Your task to perform on an android device: Clear the shopping cart on costco.com. Add razer naga to the cart on costco.com Image 0: 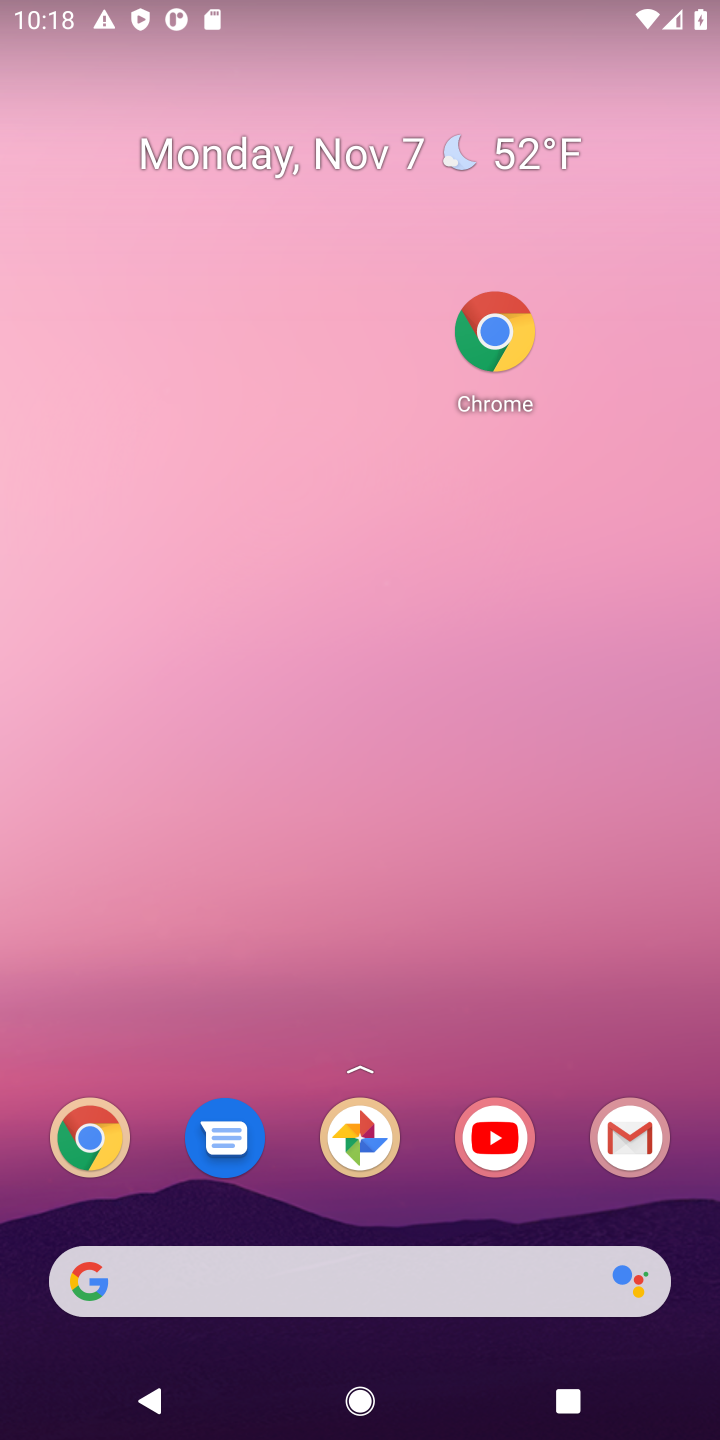
Step 0: drag from (431, 1128) to (370, 295)
Your task to perform on an android device: Clear the shopping cart on costco.com. Add razer naga to the cart on costco.com Image 1: 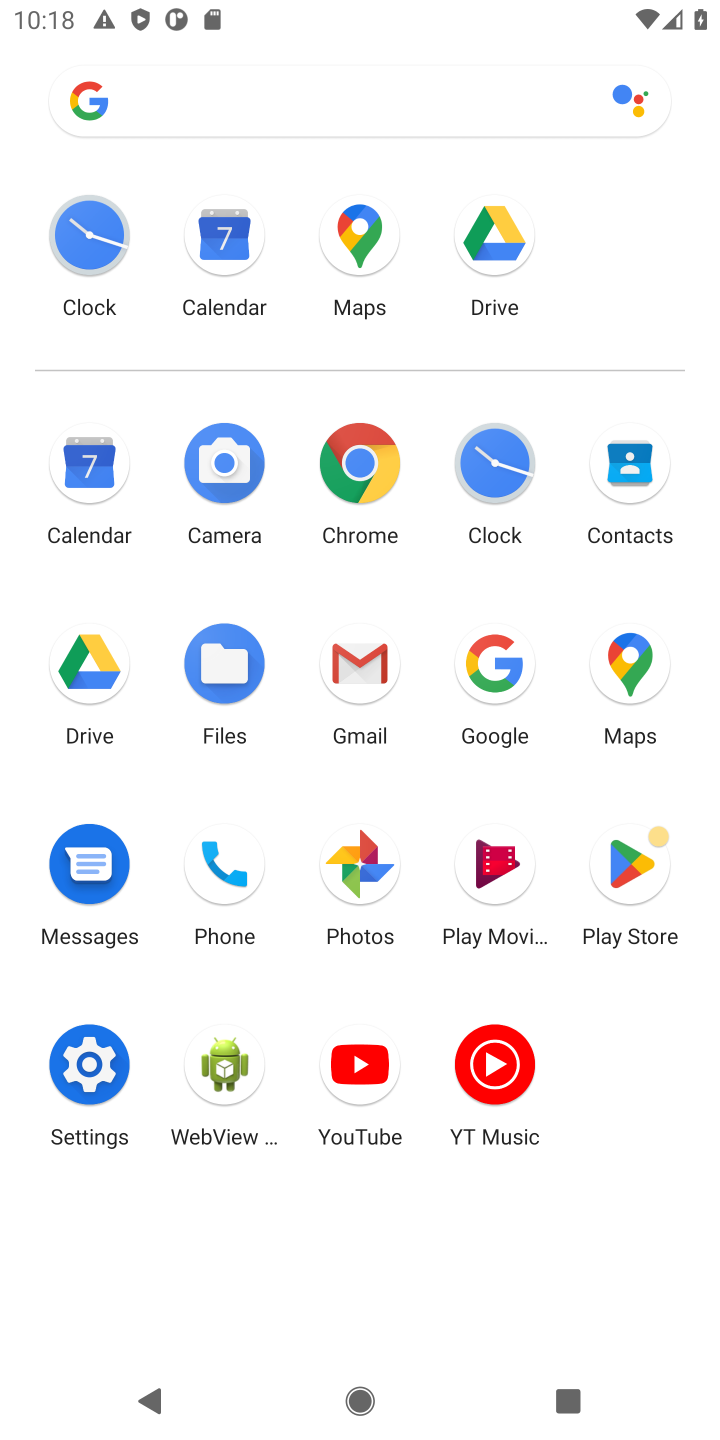
Step 1: click (366, 465)
Your task to perform on an android device: Clear the shopping cart on costco.com. Add razer naga to the cart on costco.com Image 2: 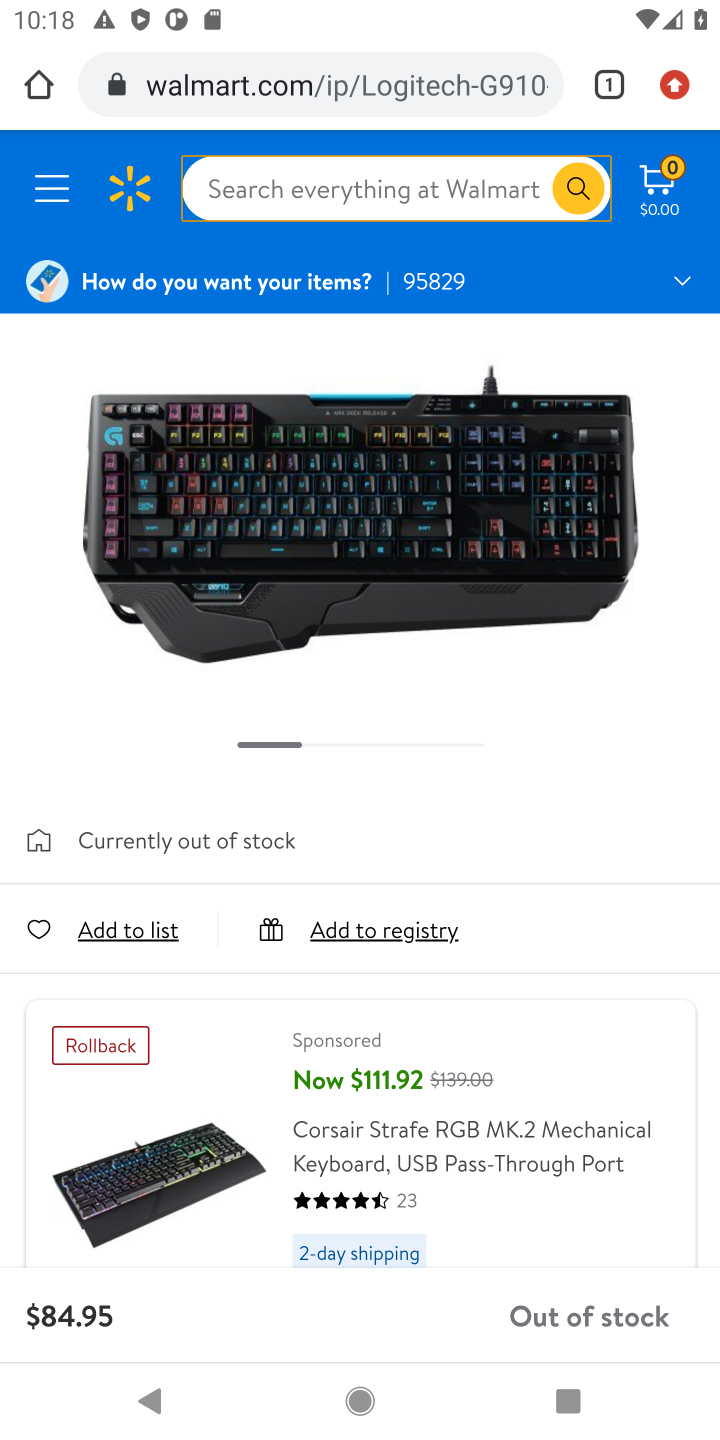
Step 2: click (442, 88)
Your task to perform on an android device: Clear the shopping cart on costco.com. Add razer naga to the cart on costco.com Image 3: 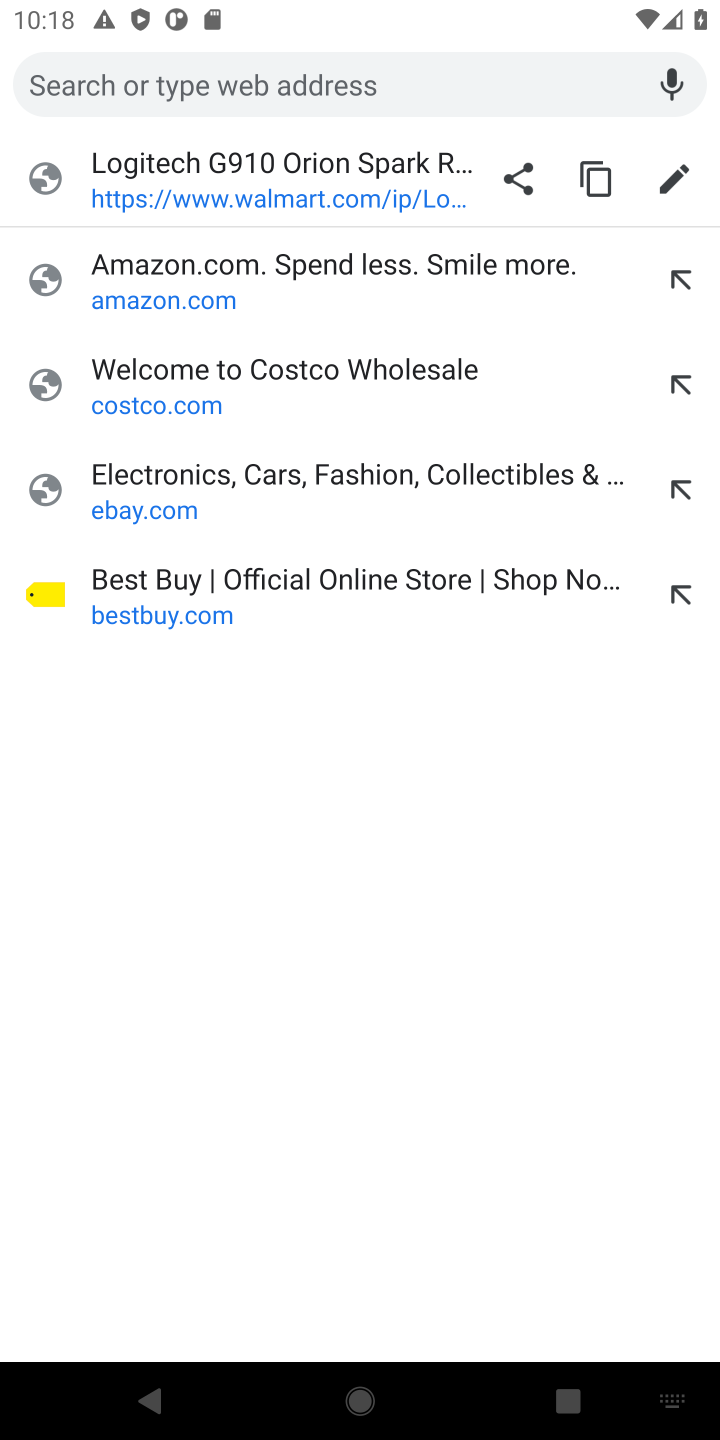
Step 3: type "costco.com"
Your task to perform on an android device: Clear the shopping cart on costco.com. Add razer naga to the cart on costco.com Image 4: 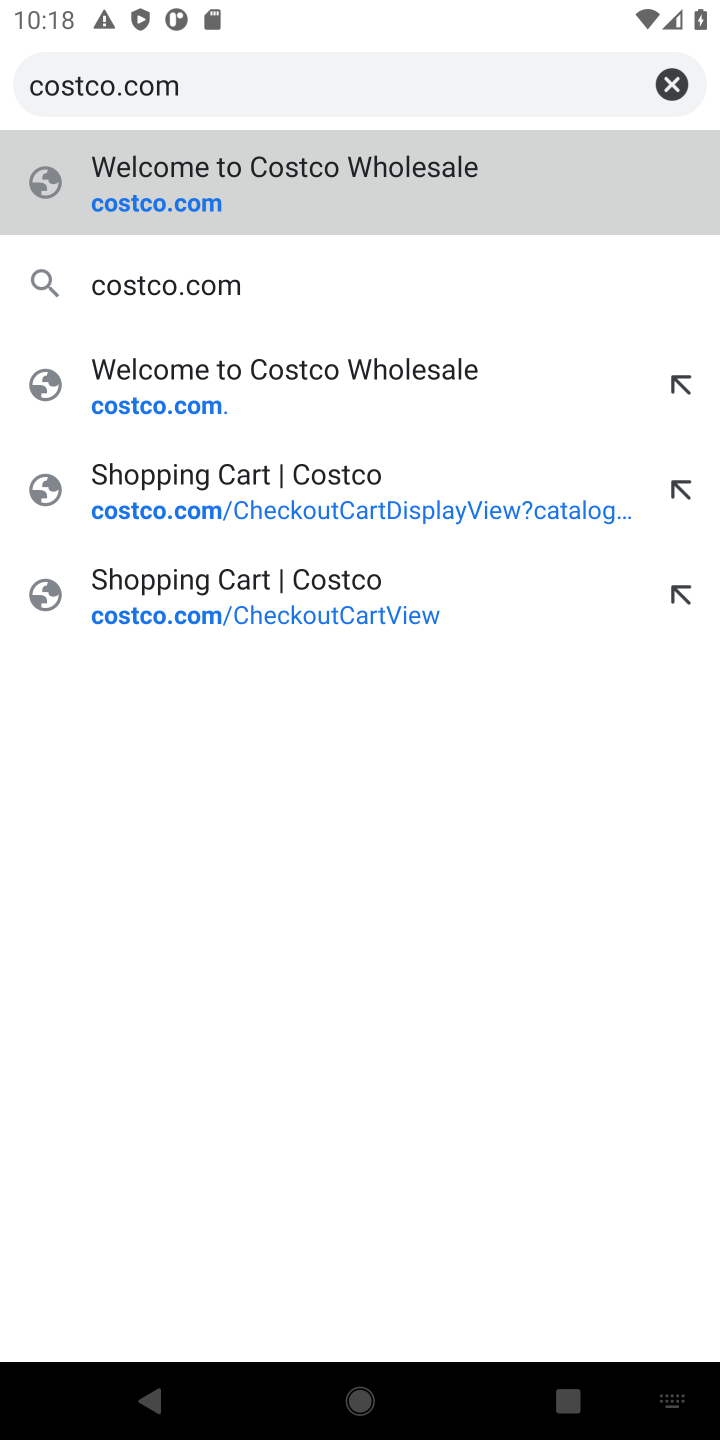
Step 4: press enter
Your task to perform on an android device: Clear the shopping cart on costco.com. Add razer naga to the cart on costco.com Image 5: 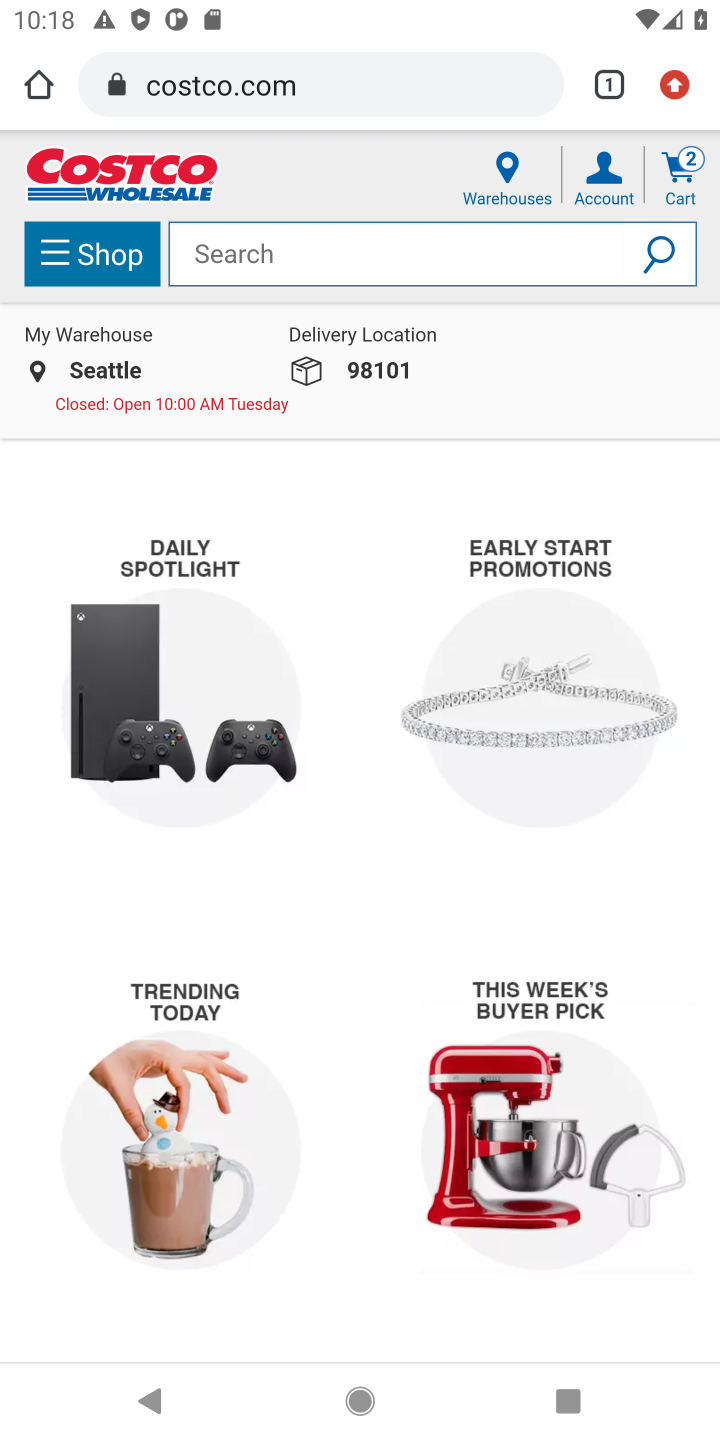
Step 5: click (680, 181)
Your task to perform on an android device: Clear the shopping cart on costco.com. Add razer naga to the cart on costco.com Image 6: 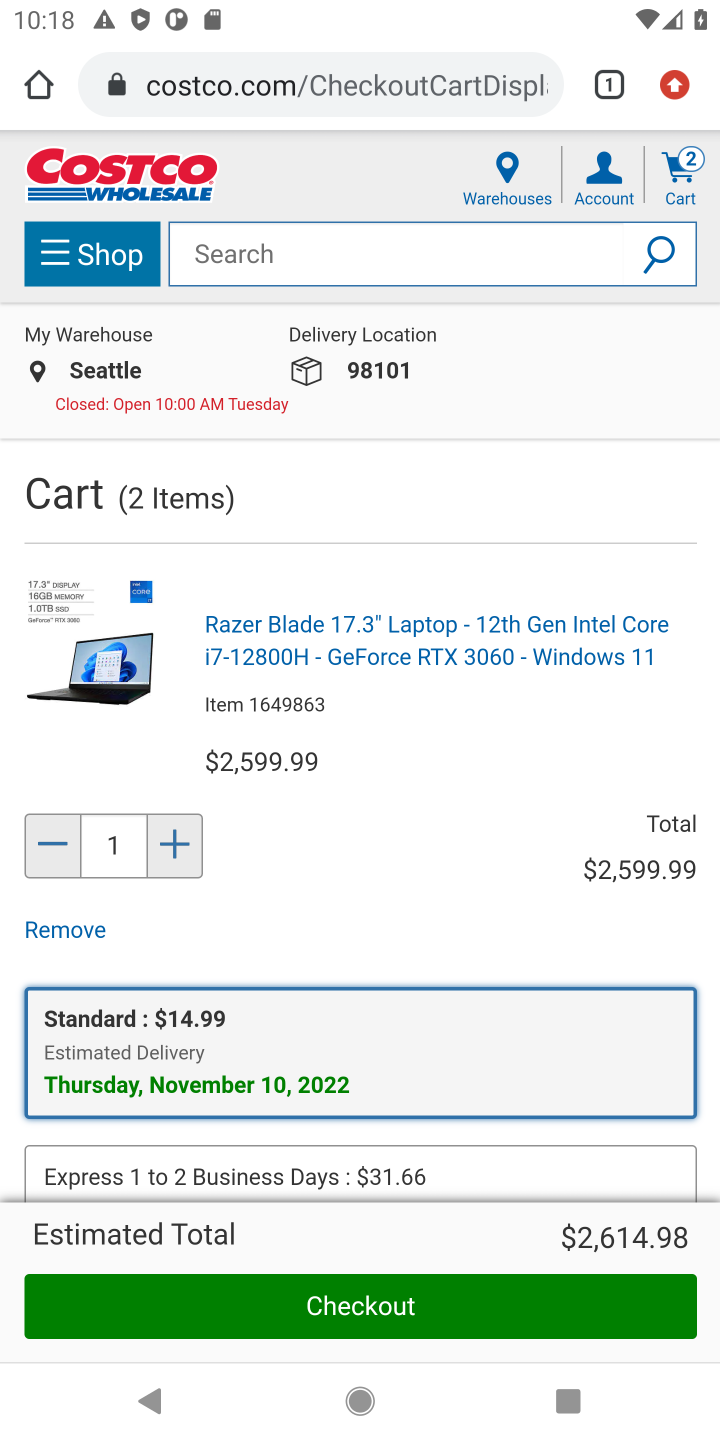
Step 6: click (88, 932)
Your task to perform on an android device: Clear the shopping cart on costco.com. Add razer naga to the cart on costco.com Image 7: 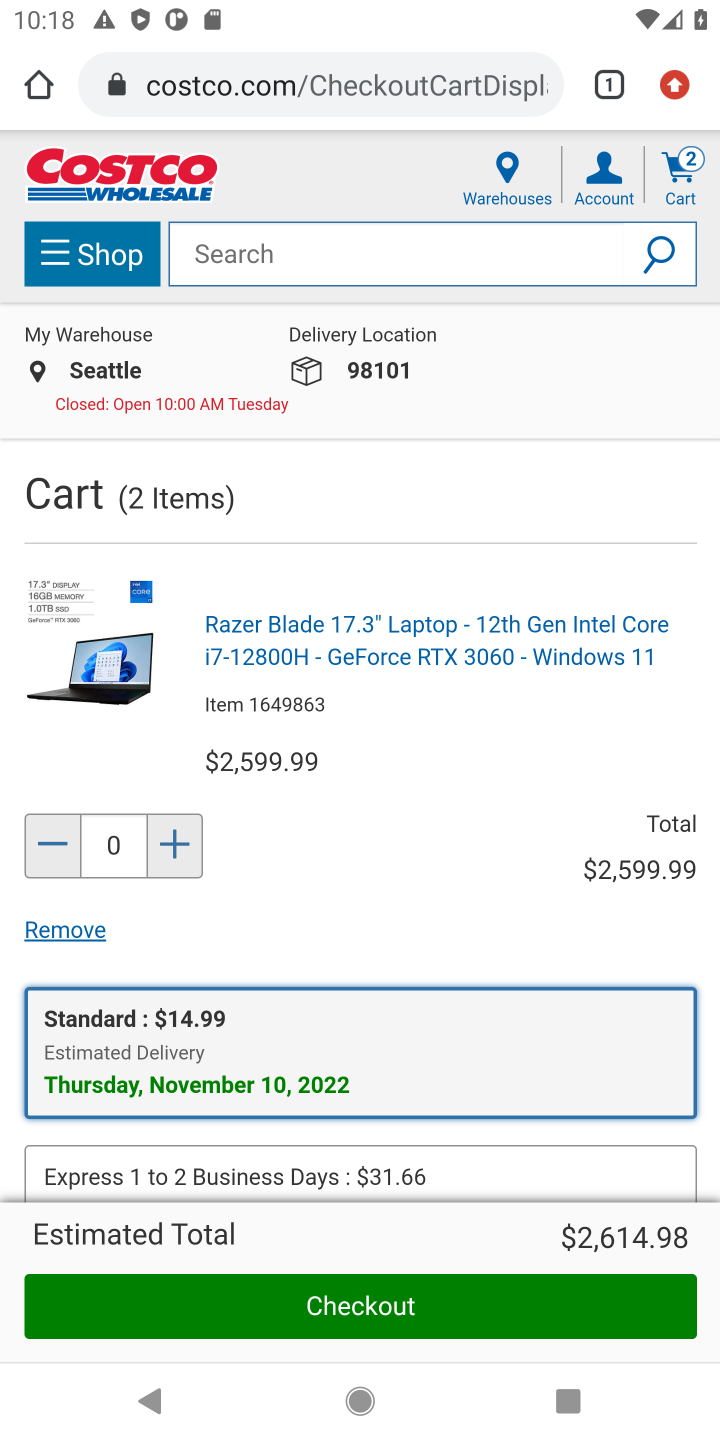
Step 7: click (76, 916)
Your task to perform on an android device: Clear the shopping cart on costco.com. Add razer naga to the cart on costco.com Image 8: 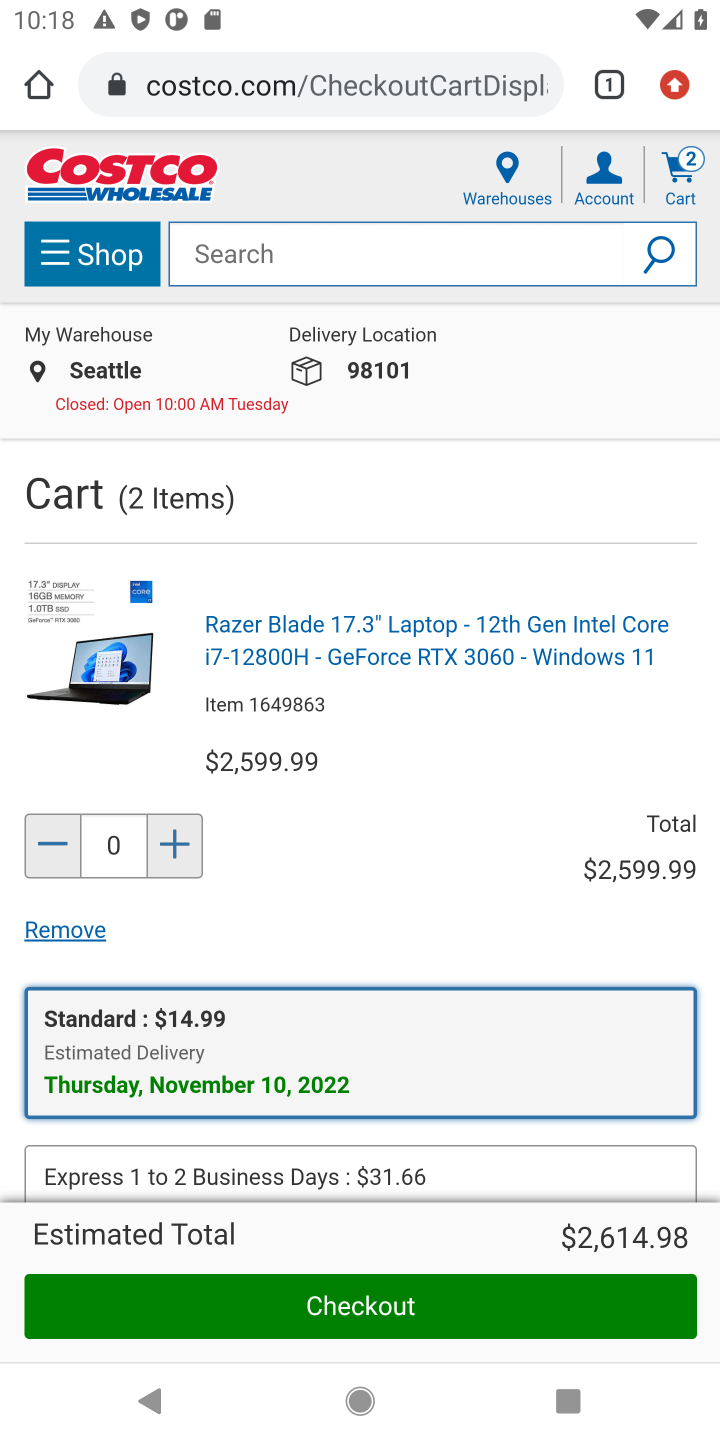
Step 8: click (78, 928)
Your task to perform on an android device: Clear the shopping cart on costco.com. Add razer naga to the cart on costco.com Image 9: 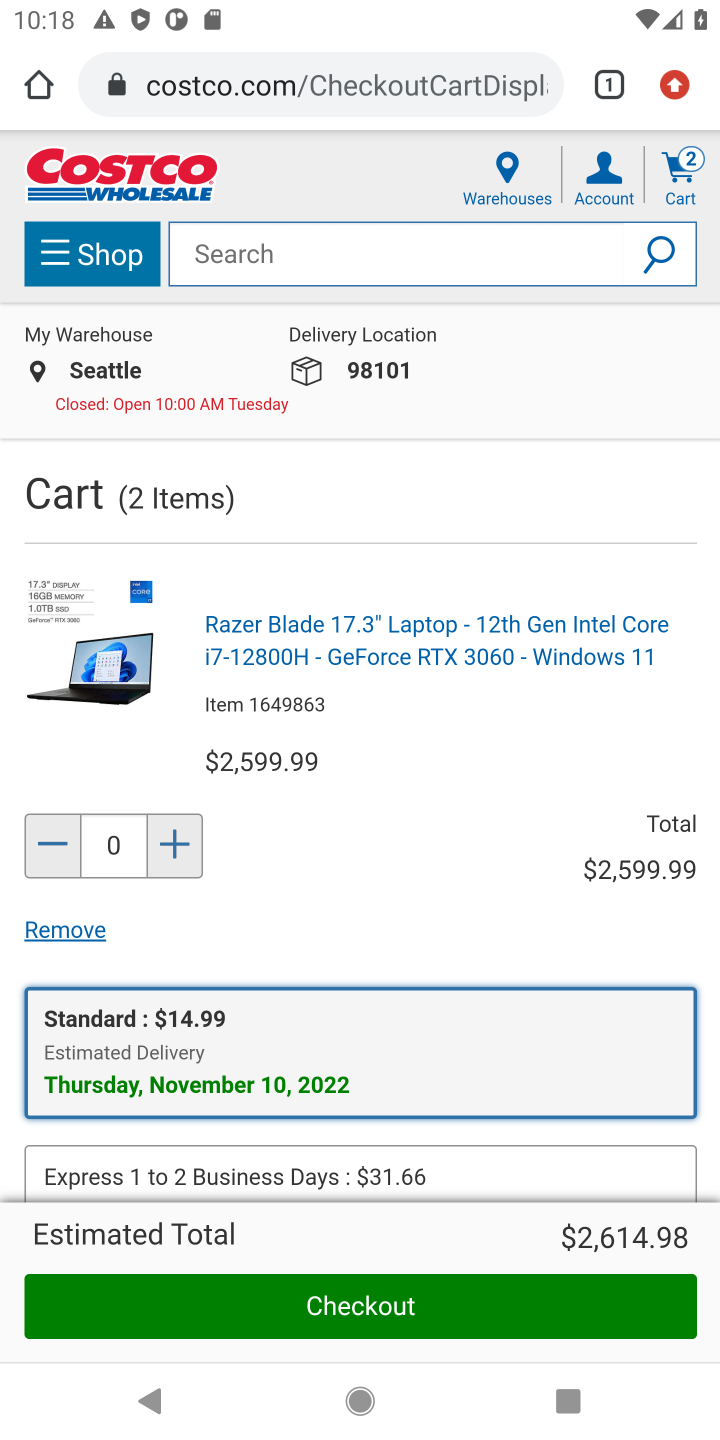
Step 9: click (78, 928)
Your task to perform on an android device: Clear the shopping cart on costco.com. Add razer naga to the cart on costco.com Image 10: 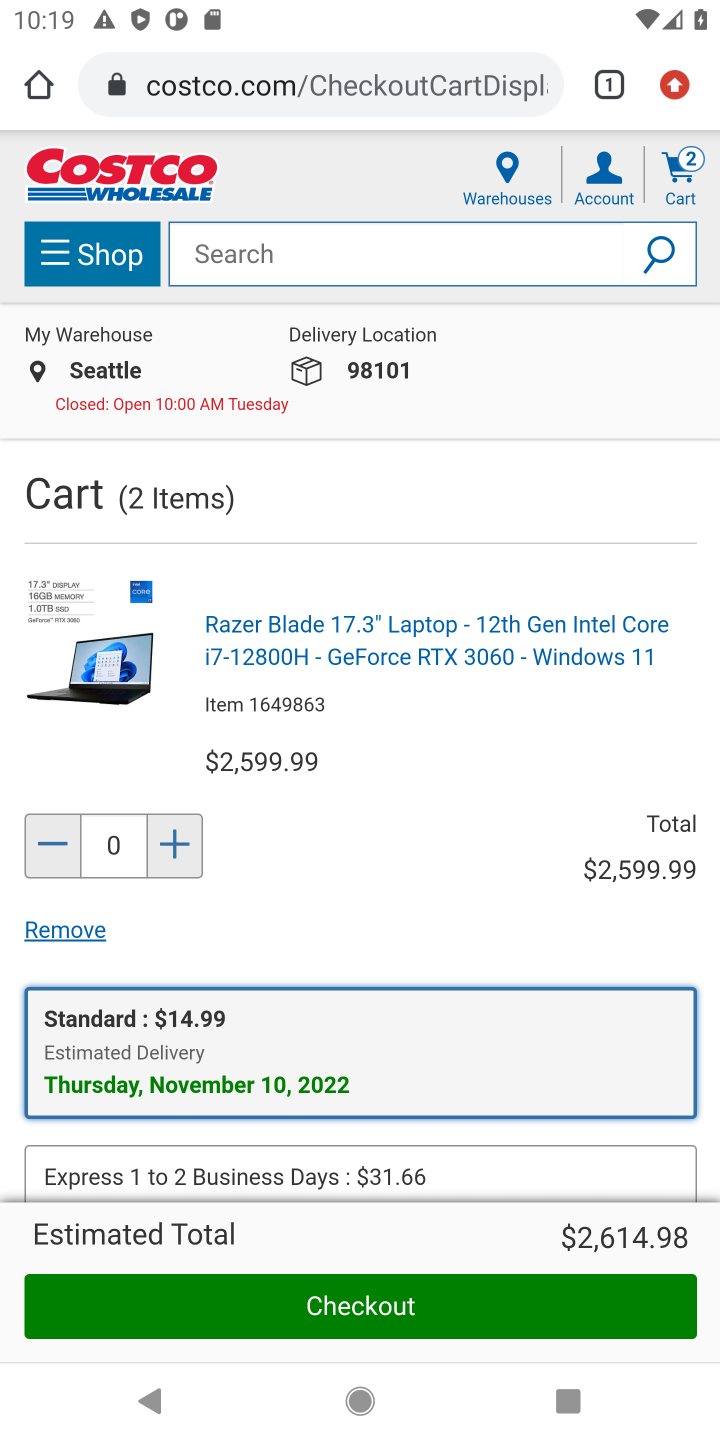
Step 10: click (78, 933)
Your task to perform on an android device: Clear the shopping cart on costco.com. Add razer naga to the cart on costco.com Image 11: 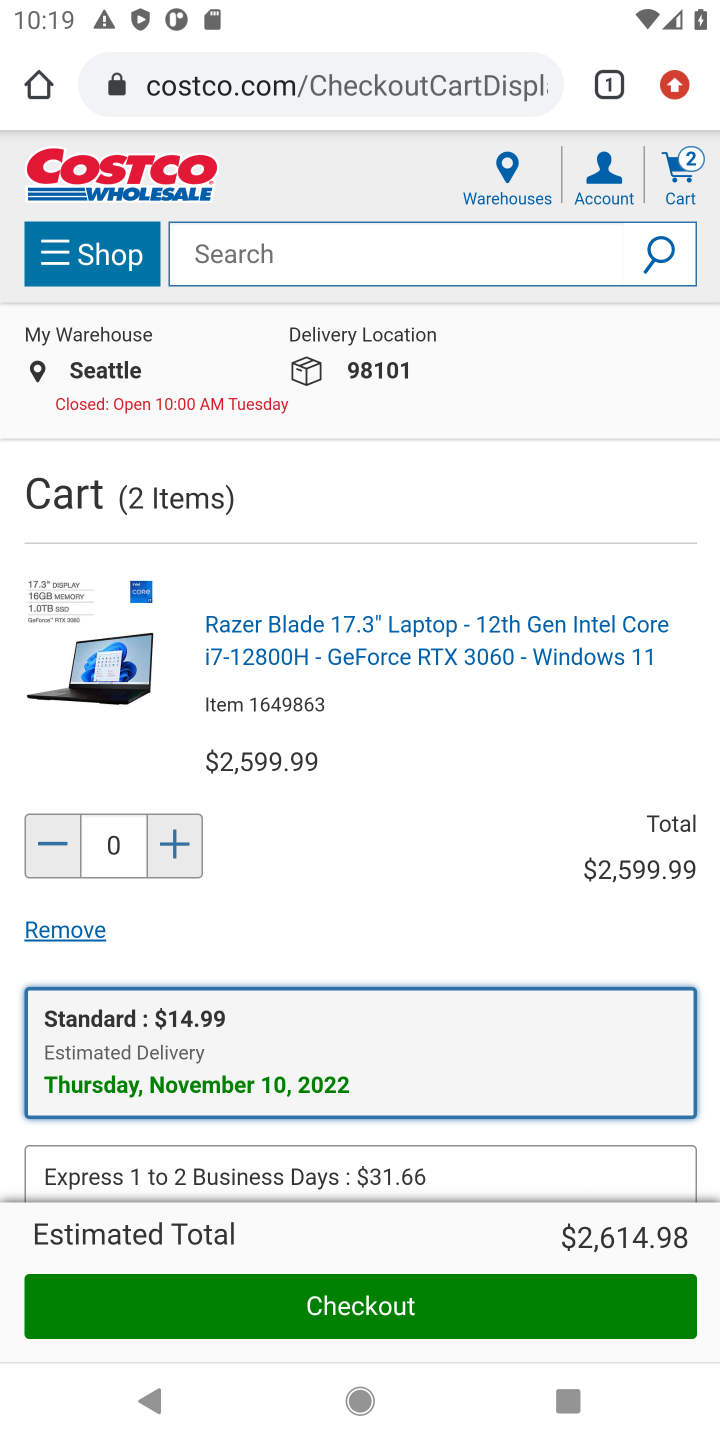
Step 11: click (78, 933)
Your task to perform on an android device: Clear the shopping cart on costco.com. Add razer naga to the cart on costco.com Image 12: 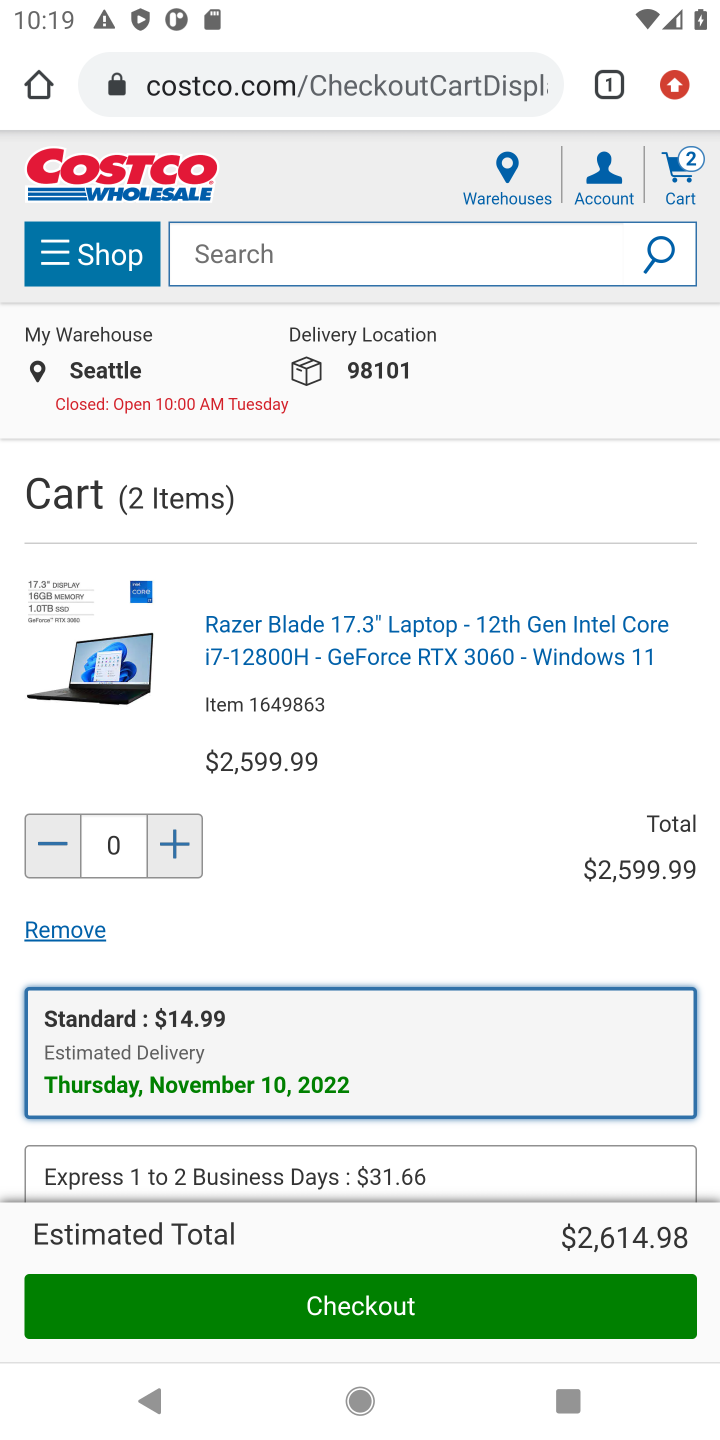
Step 12: click (68, 932)
Your task to perform on an android device: Clear the shopping cart on costco.com. Add razer naga to the cart on costco.com Image 13: 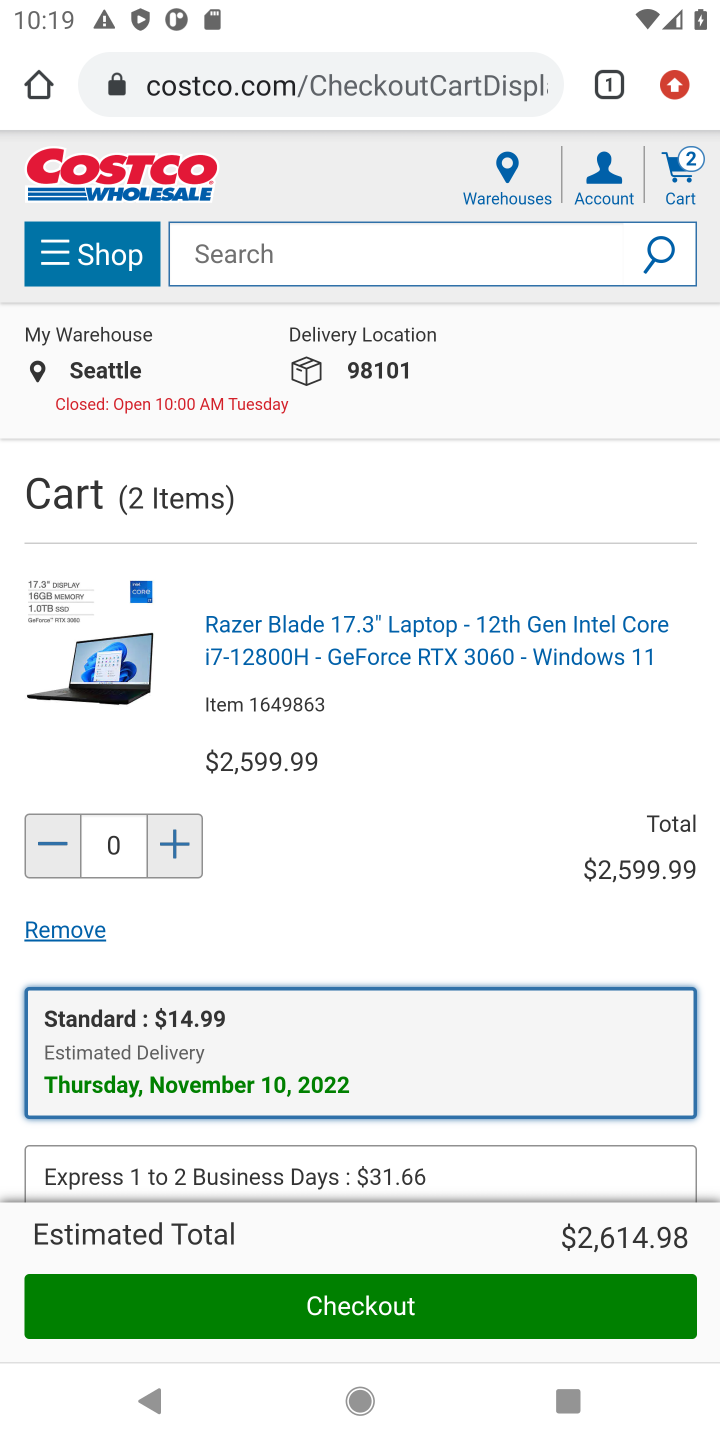
Step 13: drag from (482, 890) to (520, 586)
Your task to perform on an android device: Clear the shopping cart on costco.com. Add razer naga to the cart on costco.com Image 14: 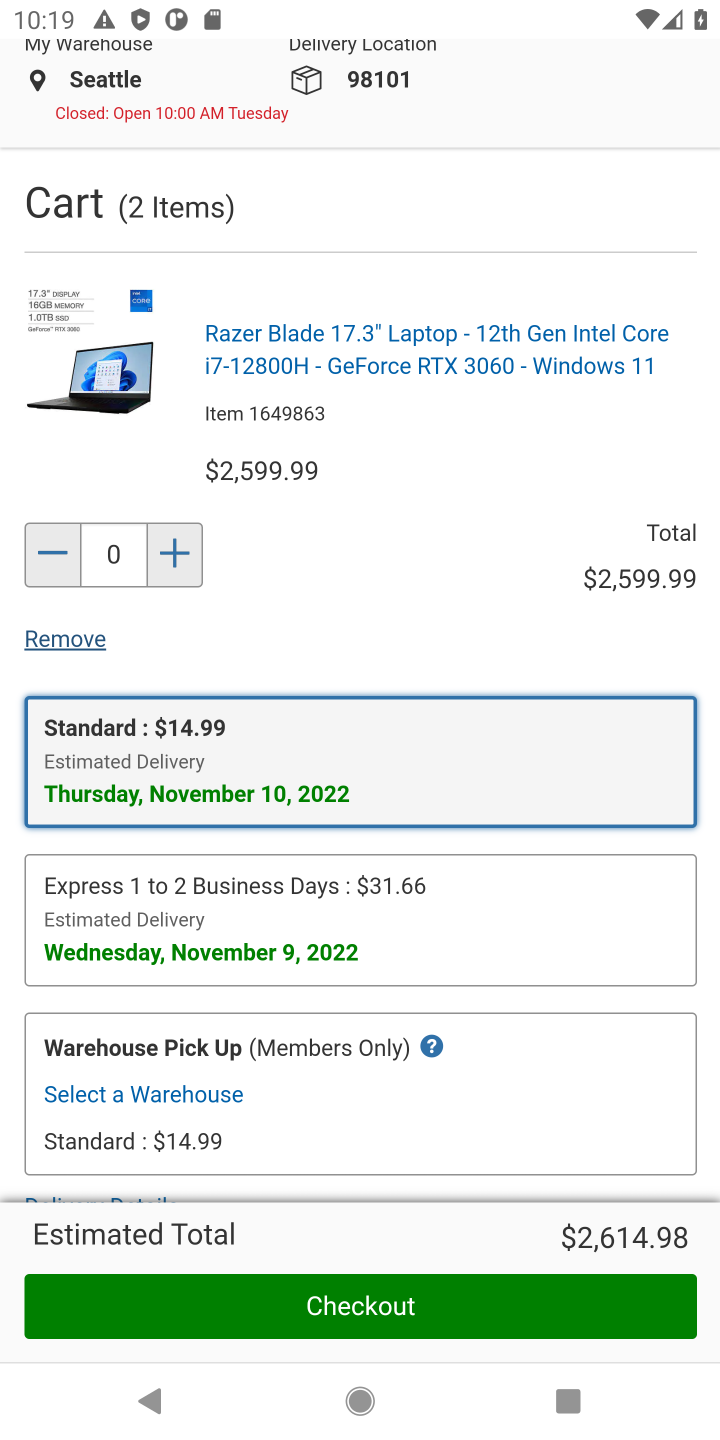
Step 14: click (61, 639)
Your task to perform on an android device: Clear the shopping cart on costco.com. Add razer naga to the cart on costco.com Image 15: 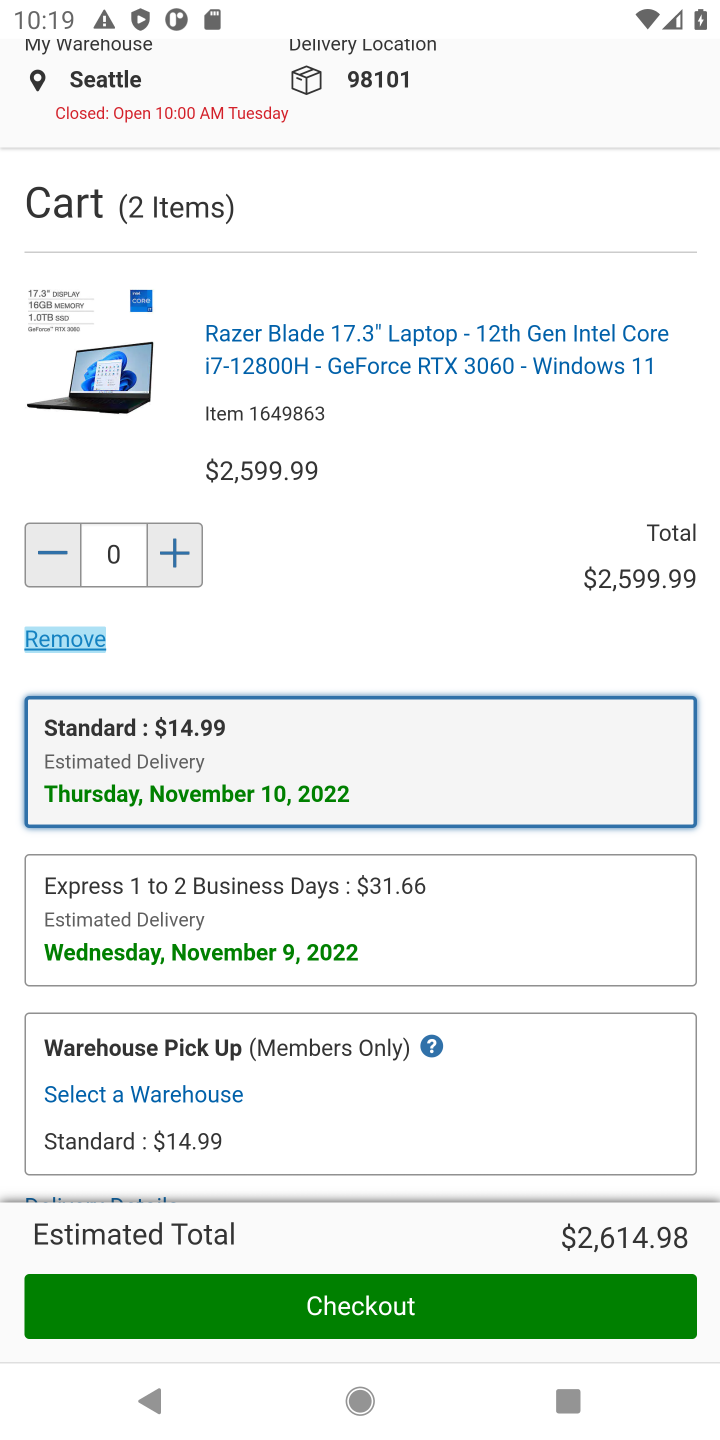
Step 15: click (61, 639)
Your task to perform on an android device: Clear the shopping cart on costco.com. Add razer naga to the cart on costco.com Image 16: 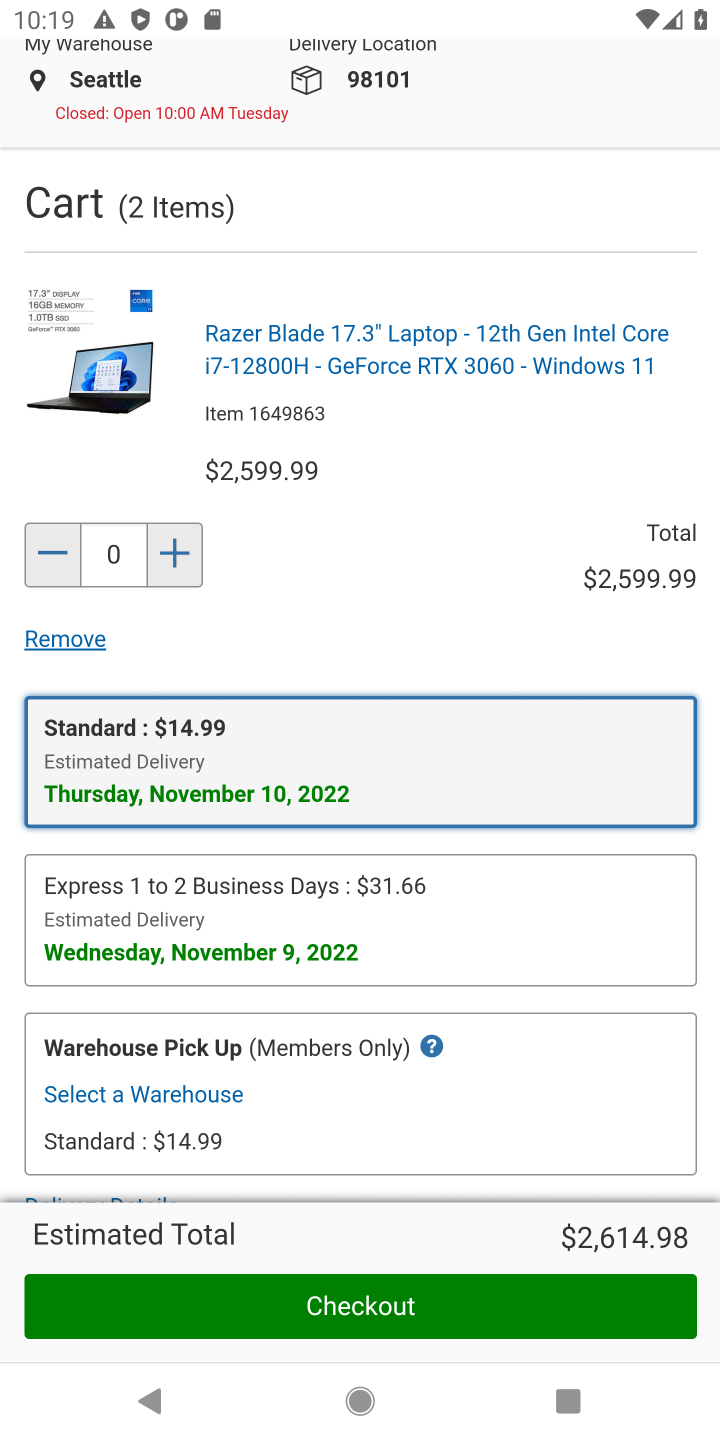
Step 16: click (61, 639)
Your task to perform on an android device: Clear the shopping cart on costco.com. Add razer naga to the cart on costco.com Image 17: 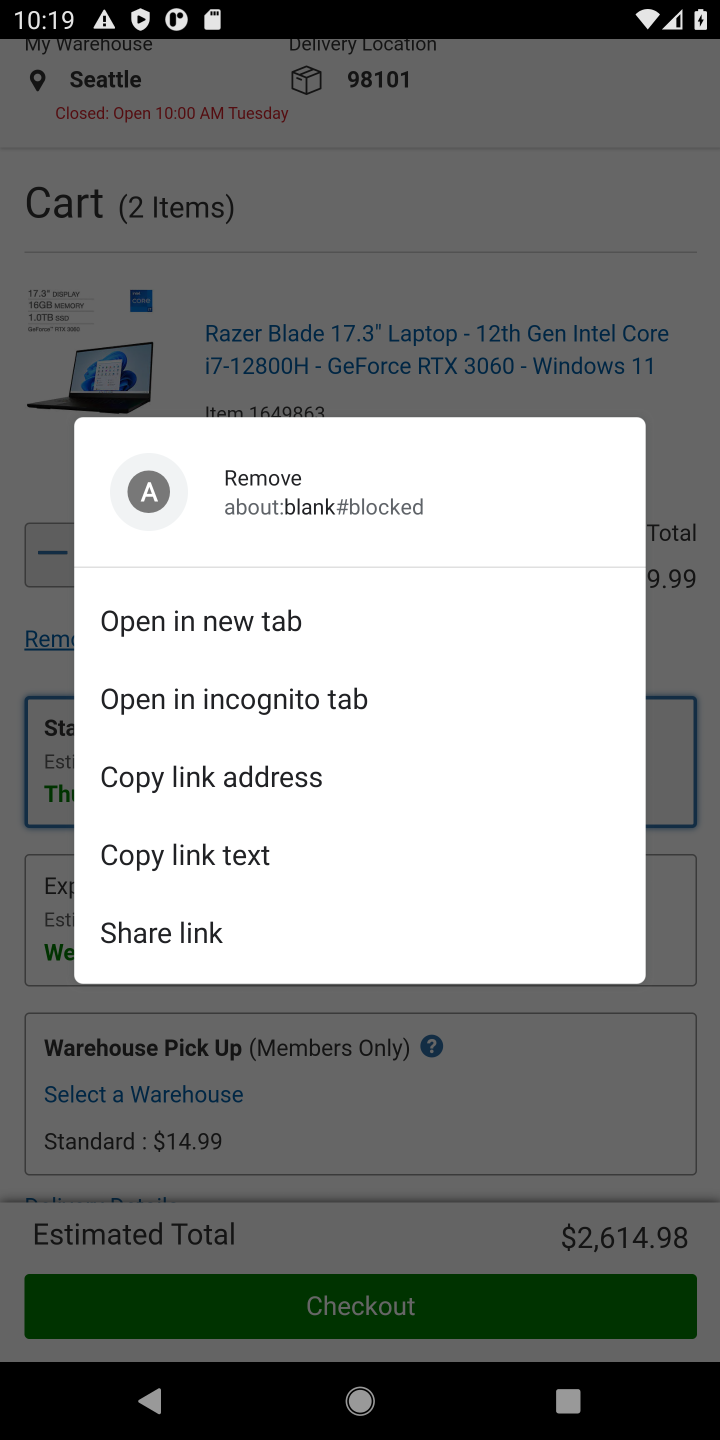
Step 17: click (659, 370)
Your task to perform on an android device: Clear the shopping cart on costco.com. Add razer naga to the cart on costco.com Image 18: 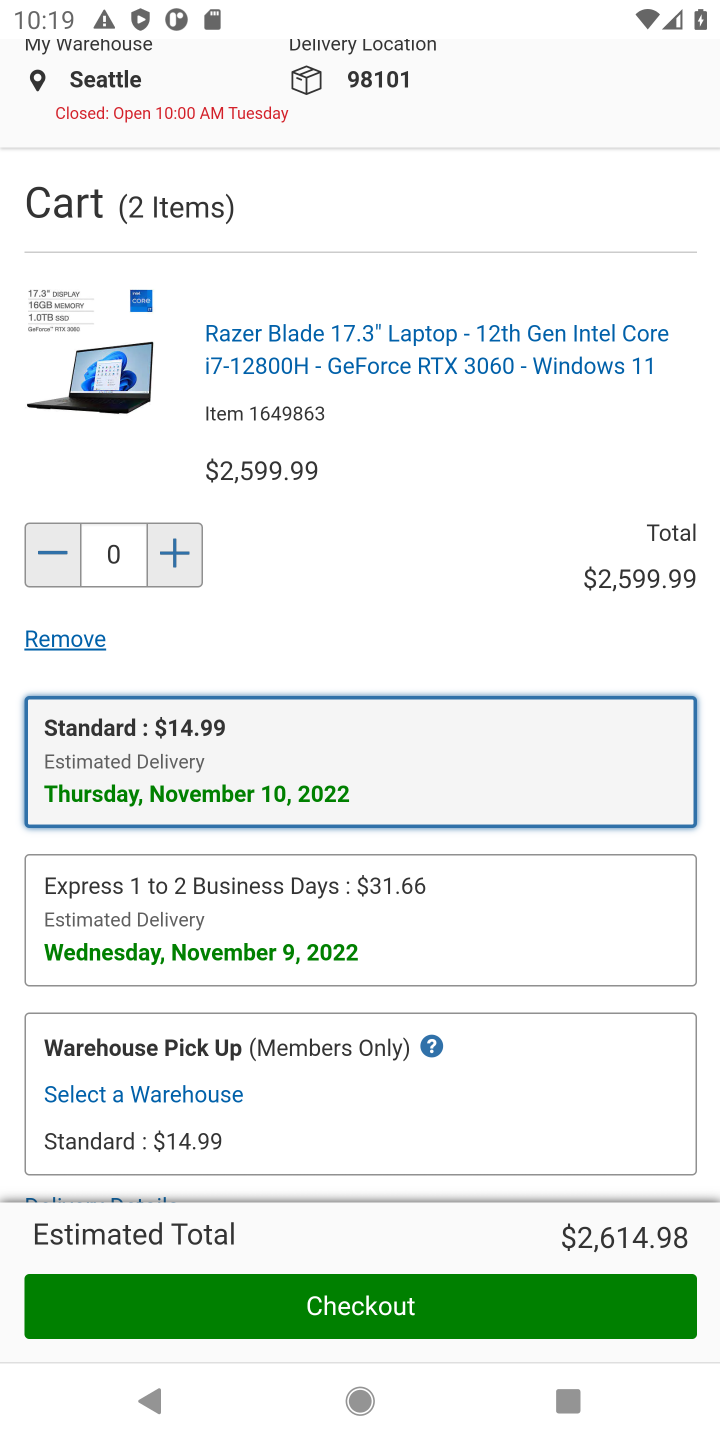
Step 18: task complete